Your task to perform on an android device: Open the stopwatch Image 0: 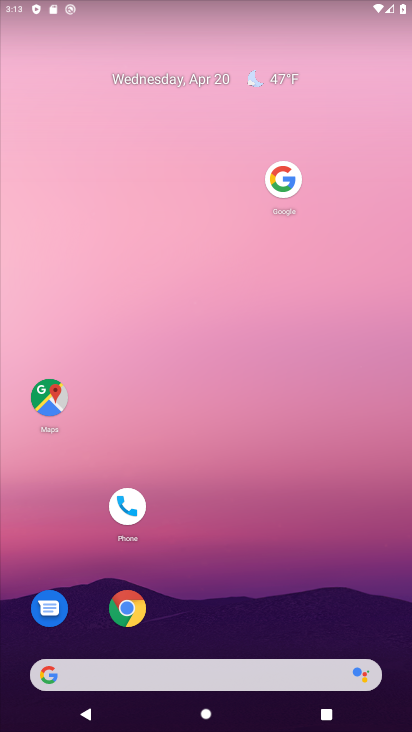
Step 0: drag from (225, 607) to (309, 16)
Your task to perform on an android device: Open the stopwatch Image 1: 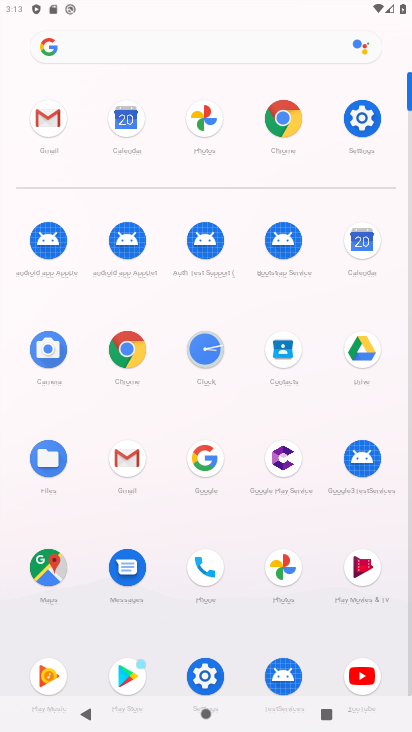
Step 1: click (197, 352)
Your task to perform on an android device: Open the stopwatch Image 2: 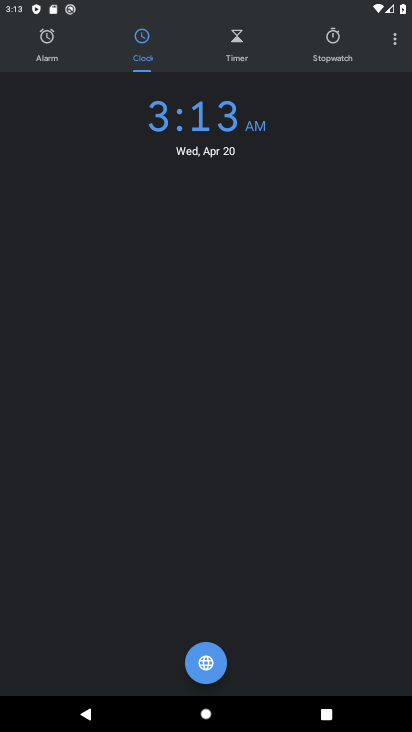
Step 2: click (337, 49)
Your task to perform on an android device: Open the stopwatch Image 3: 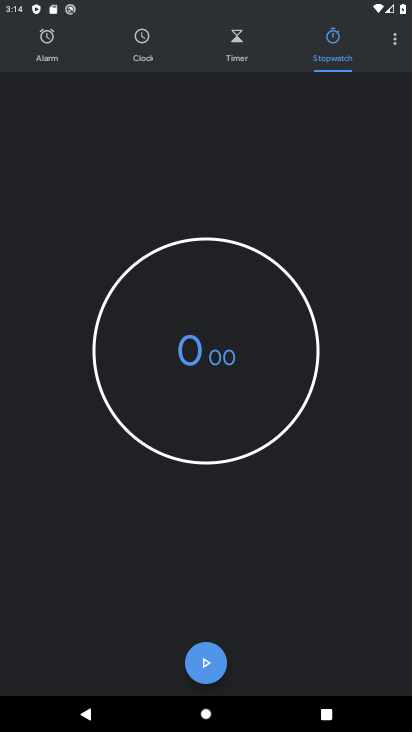
Step 3: task complete